Your task to perform on an android device: Open the phone app and click the voicemail tab. Image 0: 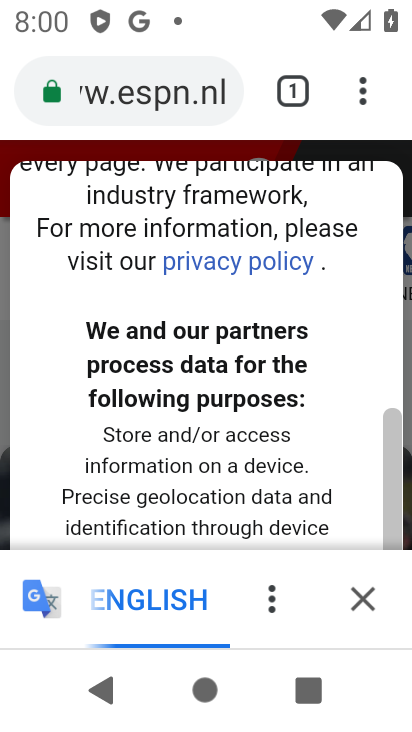
Step 0: press home button
Your task to perform on an android device: Open the phone app and click the voicemail tab. Image 1: 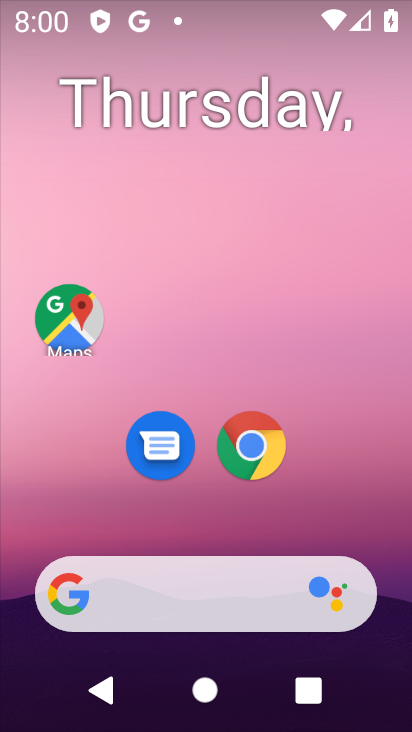
Step 1: drag from (349, 487) to (330, 40)
Your task to perform on an android device: Open the phone app and click the voicemail tab. Image 2: 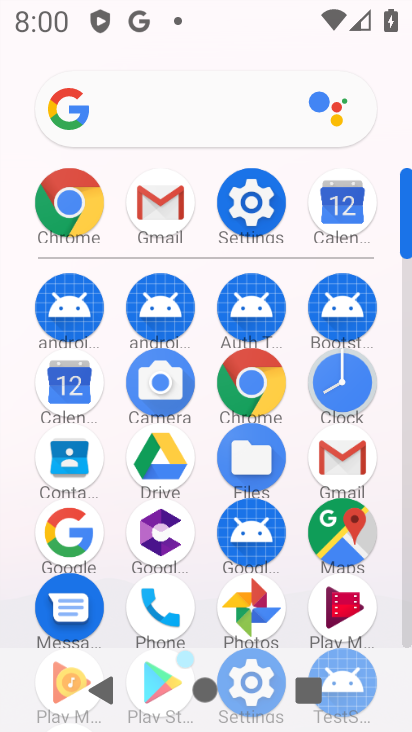
Step 2: click (133, 603)
Your task to perform on an android device: Open the phone app and click the voicemail tab. Image 3: 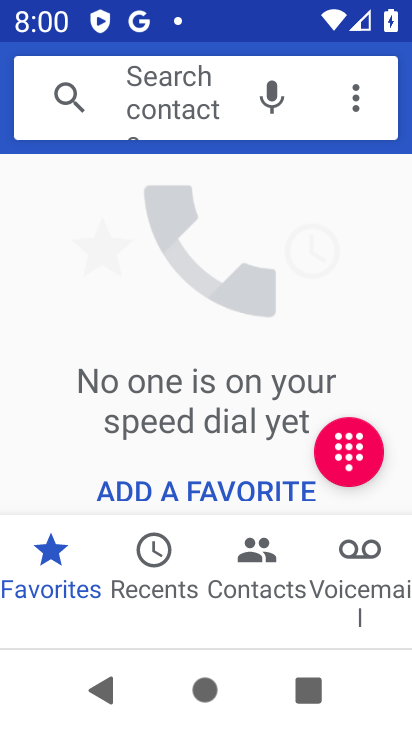
Step 3: click (390, 588)
Your task to perform on an android device: Open the phone app and click the voicemail tab. Image 4: 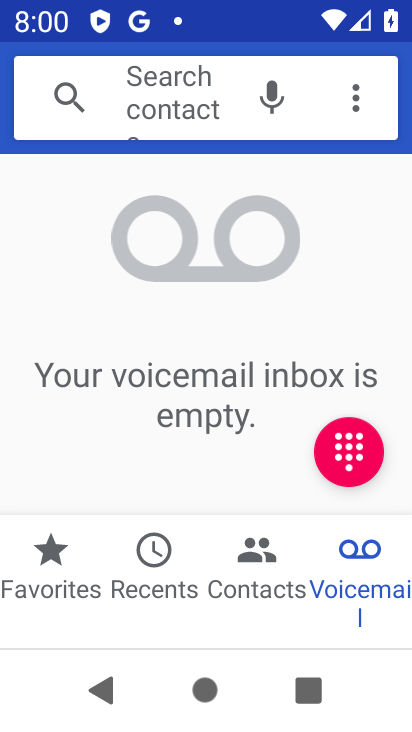
Step 4: task complete